Your task to perform on an android device: Open Chrome and go to settings Image 0: 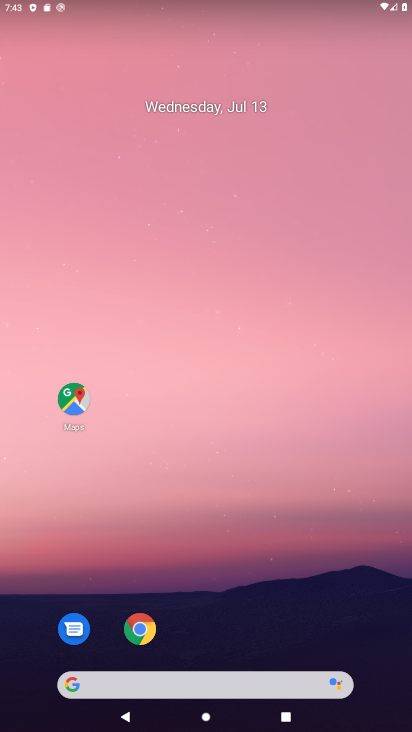
Step 0: drag from (34, 696) to (371, 55)
Your task to perform on an android device: Open Chrome and go to settings Image 1: 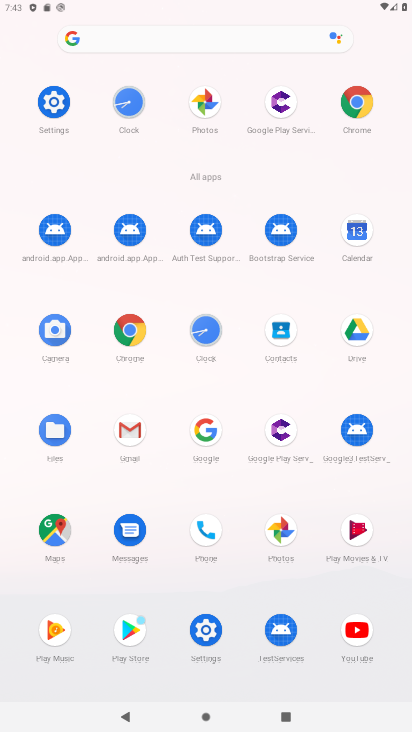
Step 1: click (216, 630)
Your task to perform on an android device: Open Chrome and go to settings Image 2: 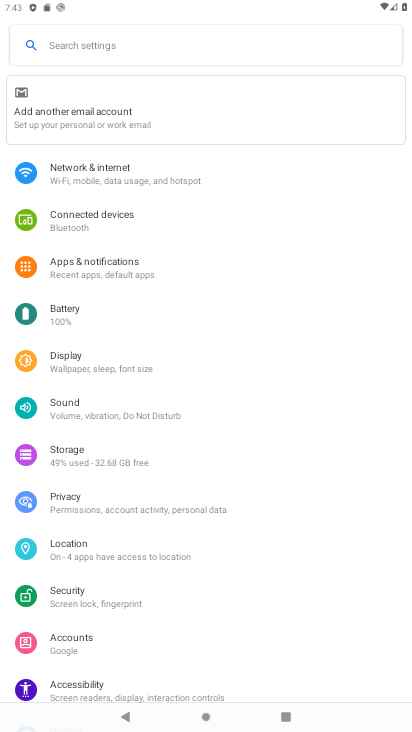
Step 2: press home button
Your task to perform on an android device: Open Chrome and go to settings Image 3: 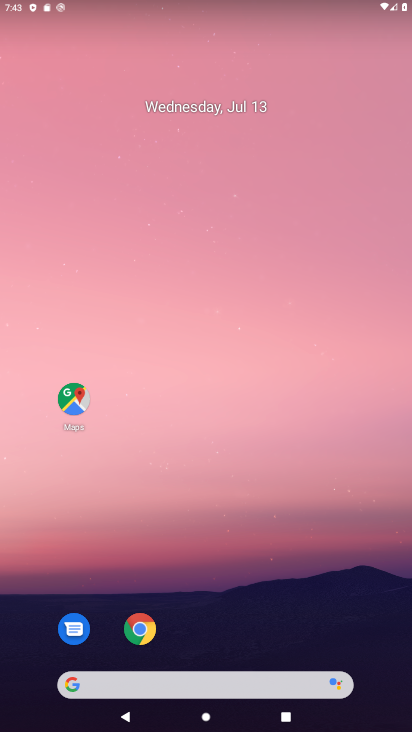
Step 3: click (134, 632)
Your task to perform on an android device: Open Chrome and go to settings Image 4: 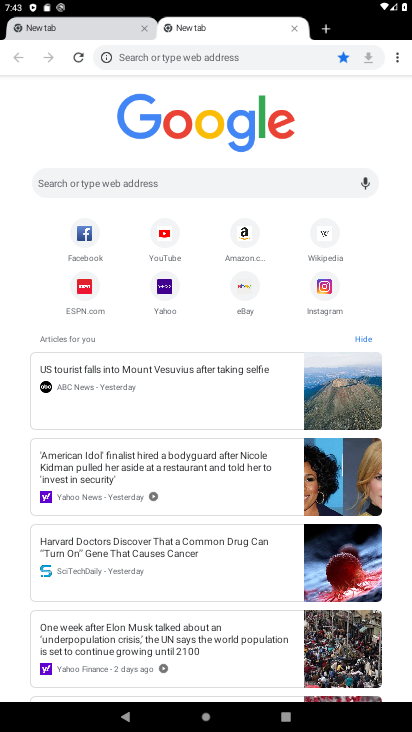
Step 4: click (394, 52)
Your task to perform on an android device: Open Chrome and go to settings Image 5: 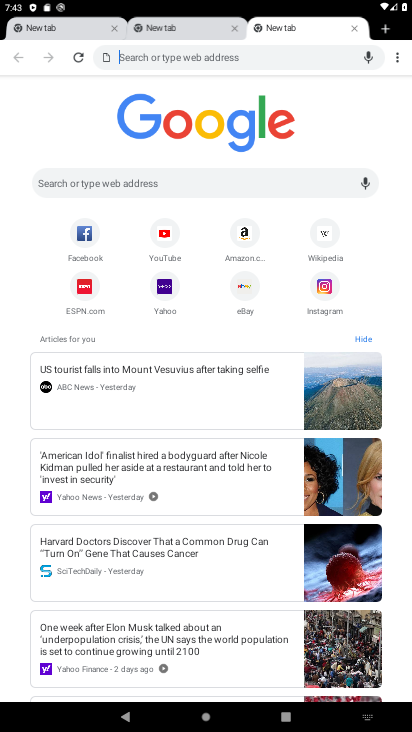
Step 5: click (391, 58)
Your task to perform on an android device: Open Chrome and go to settings Image 6: 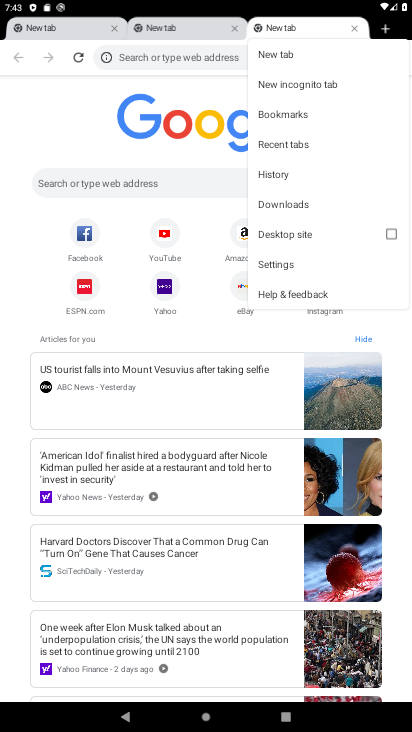
Step 6: click (269, 256)
Your task to perform on an android device: Open Chrome and go to settings Image 7: 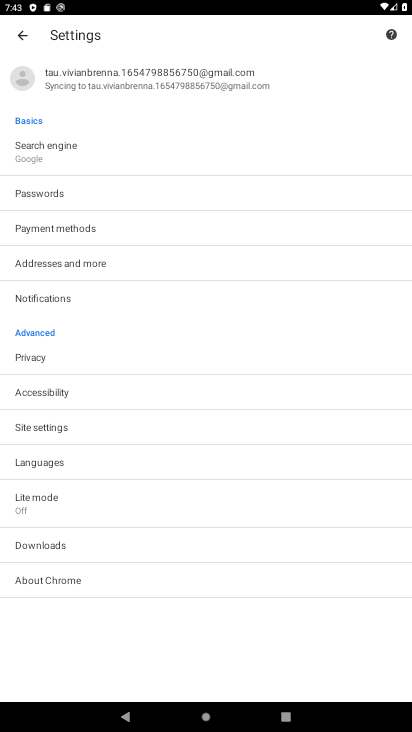
Step 7: task complete